Your task to perform on an android device: Clear the shopping cart on walmart.com. Image 0: 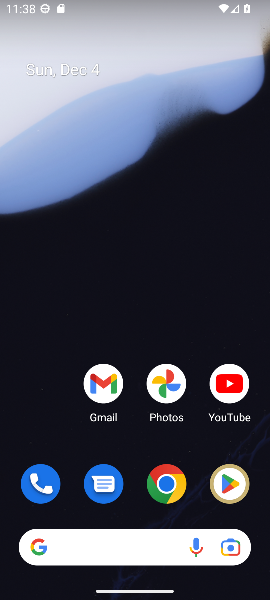
Step 0: click (166, 488)
Your task to perform on an android device: Clear the shopping cart on walmart.com. Image 1: 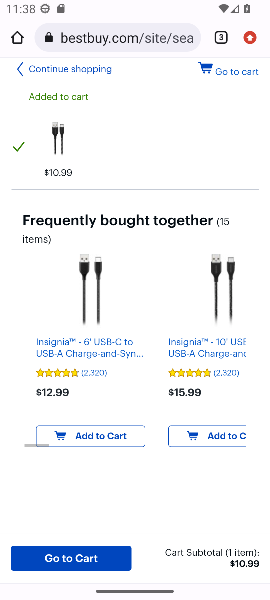
Step 1: click (128, 36)
Your task to perform on an android device: Clear the shopping cart on walmart.com. Image 2: 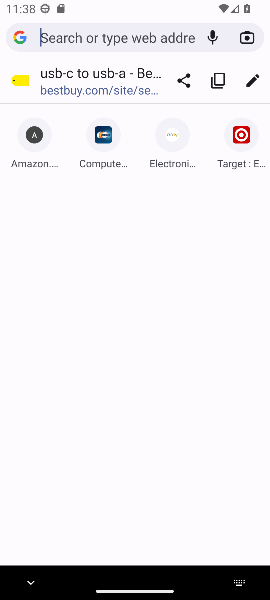
Step 2: type "walmart.com"
Your task to perform on an android device: Clear the shopping cart on walmart.com. Image 3: 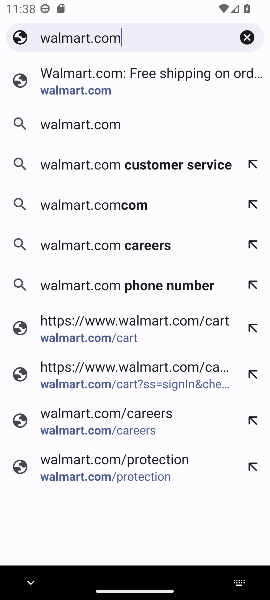
Step 3: click (72, 86)
Your task to perform on an android device: Clear the shopping cart on walmart.com. Image 4: 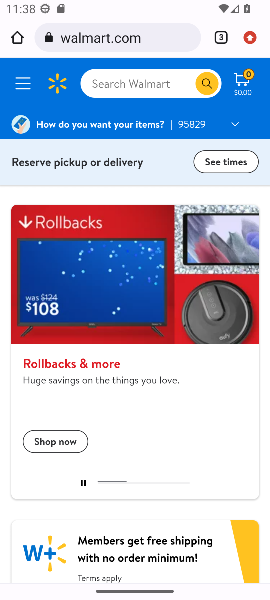
Step 4: click (248, 85)
Your task to perform on an android device: Clear the shopping cart on walmart.com. Image 5: 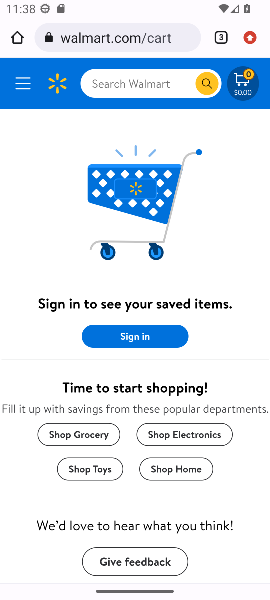
Step 5: task complete